Your task to perform on an android device: turn off wifi Image 0: 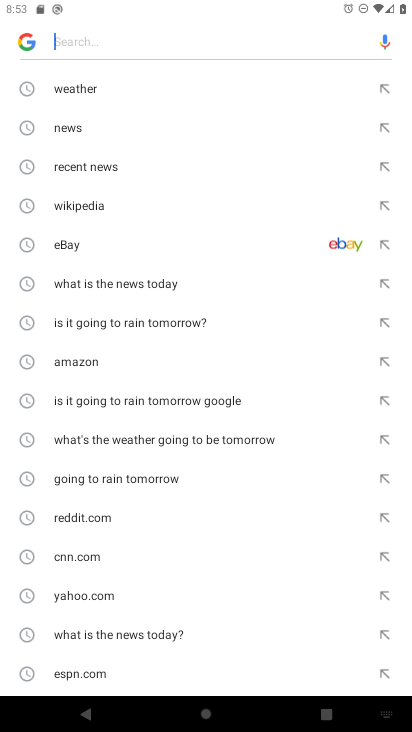
Step 0: press home button
Your task to perform on an android device: turn off wifi Image 1: 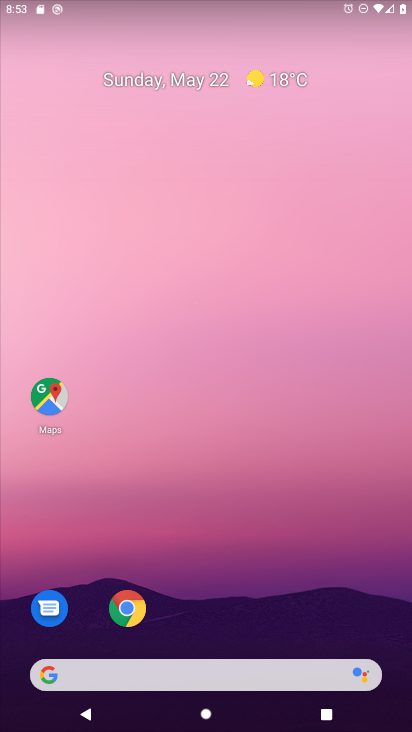
Step 1: drag from (187, 729) to (139, 149)
Your task to perform on an android device: turn off wifi Image 2: 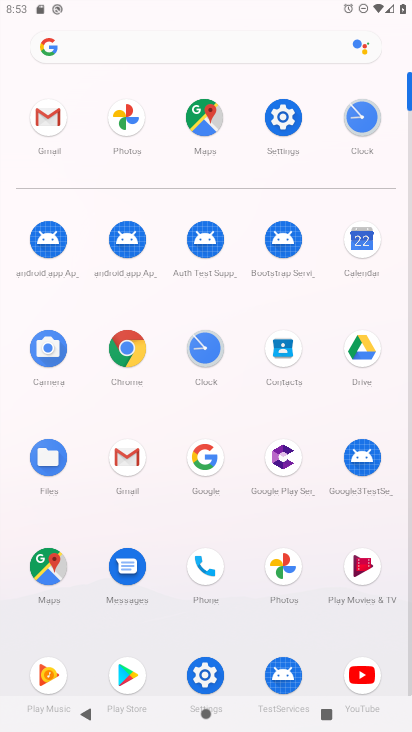
Step 2: click (288, 115)
Your task to perform on an android device: turn off wifi Image 3: 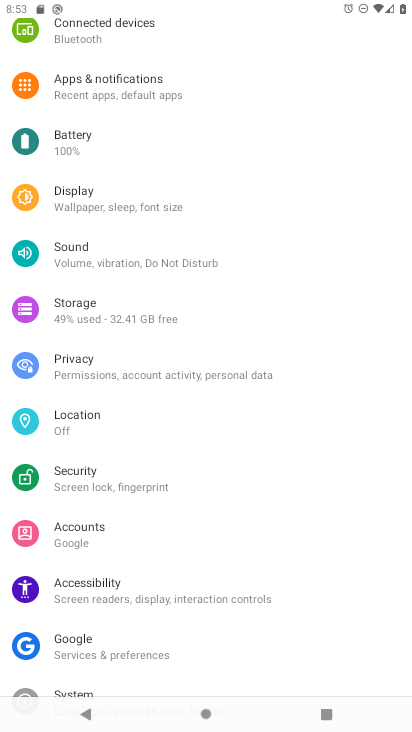
Step 3: drag from (164, 109) to (196, 627)
Your task to perform on an android device: turn off wifi Image 4: 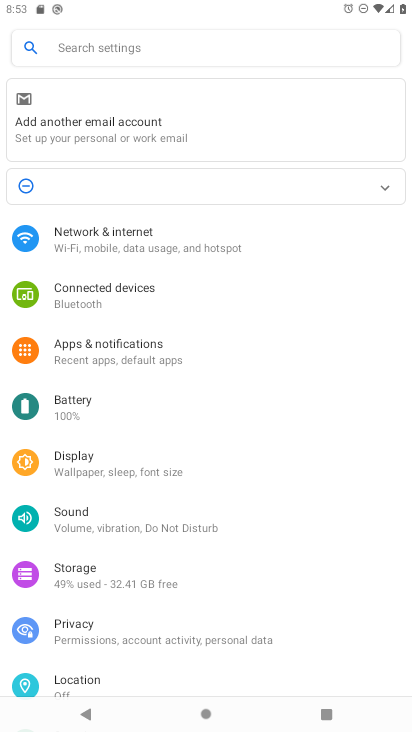
Step 4: click (131, 233)
Your task to perform on an android device: turn off wifi Image 5: 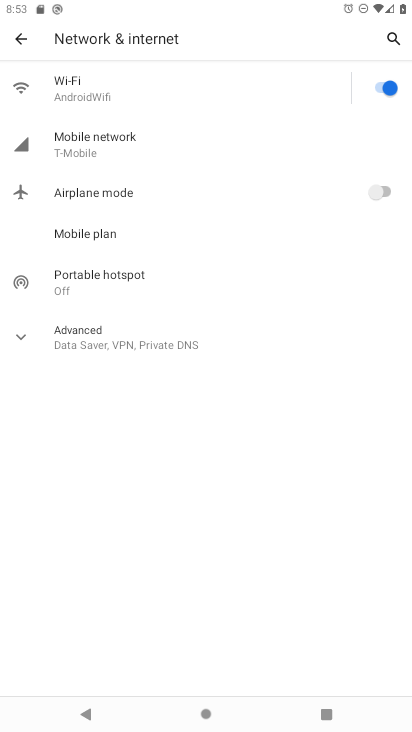
Step 5: click (385, 89)
Your task to perform on an android device: turn off wifi Image 6: 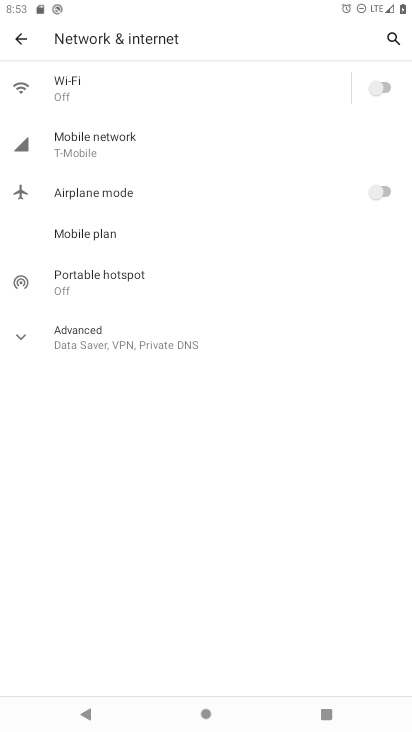
Step 6: task complete